Your task to perform on an android device: Show the shopping cart on amazon.com. Add "duracell triple a" to the cart on amazon.com Image 0: 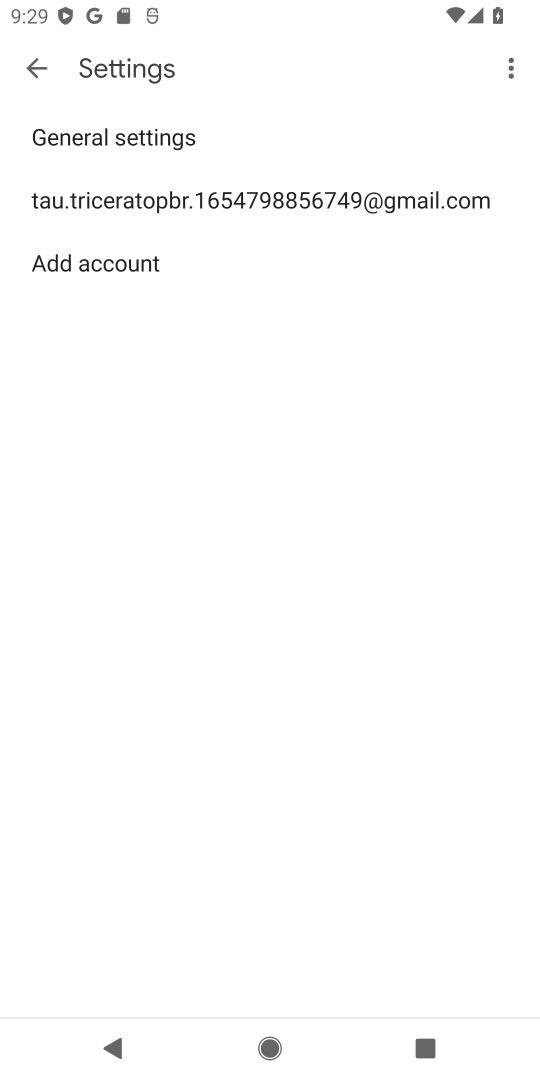
Step 0: press home button
Your task to perform on an android device: Show the shopping cart on amazon.com. Add "duracell triple a" to the cart on amazon.com Image 1: 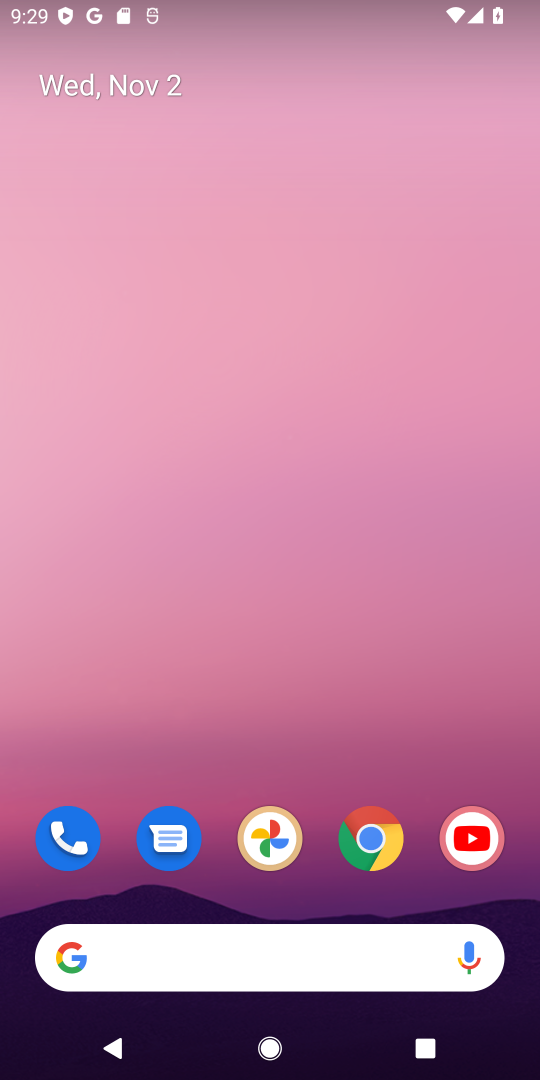
Step 1: click (380, 842)
Your task to perform on an android device: Show the shopping cart on amazon.com. Add "duracell triple a" to the cart on amazon.com Image 2: 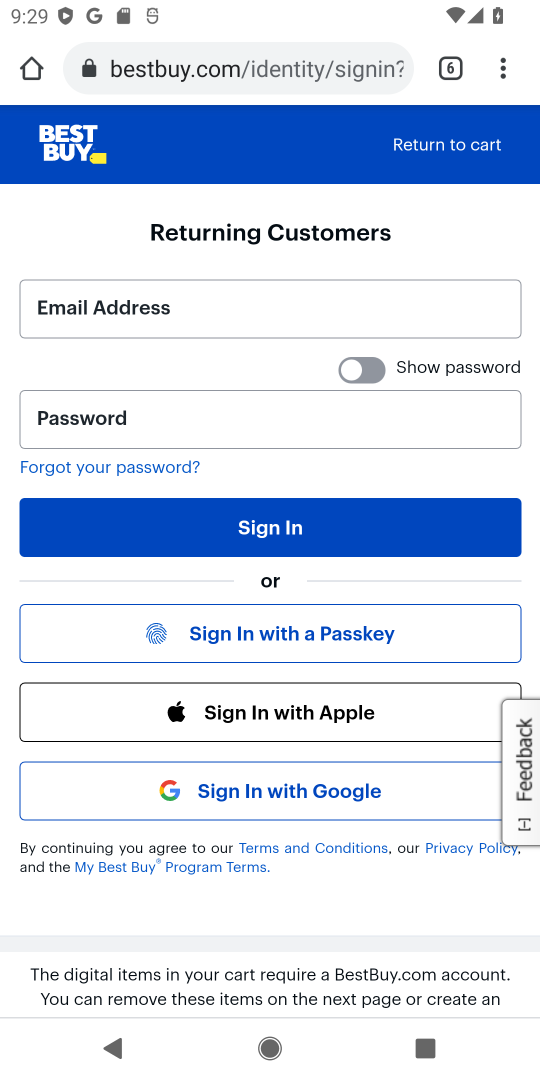
Step 2: click (449, 66)
Your task to perform on an android device: Show the shopping cart on amazon.com. Add "duracell triple a" to the cart on amazon.com Image 3: 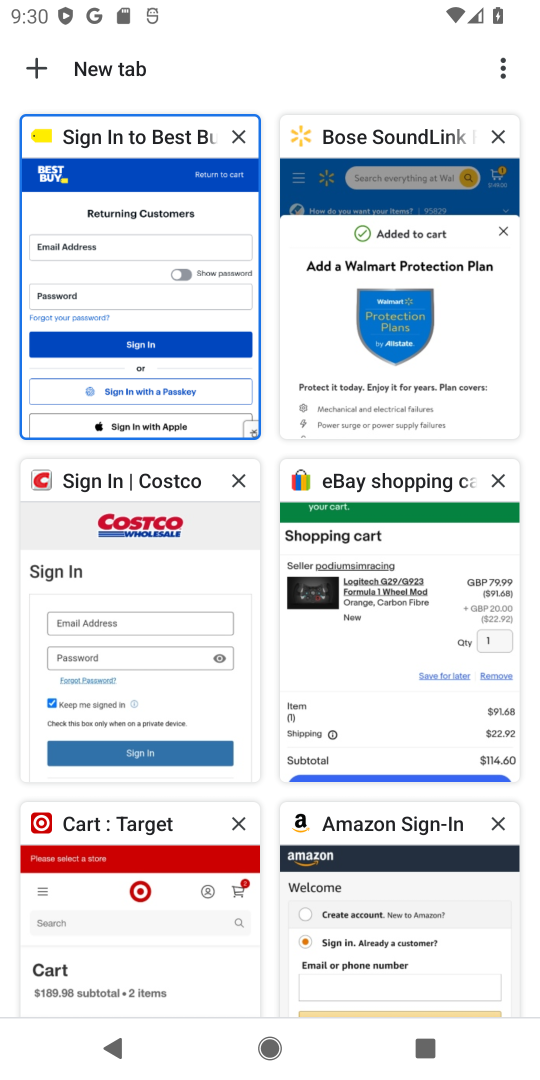
Step 3: click (380, 858)
Your task to perform on an android device: Show the shopping cart on amazon.com. Add "duracell triple a" to the cart on amazon.com Image 4: 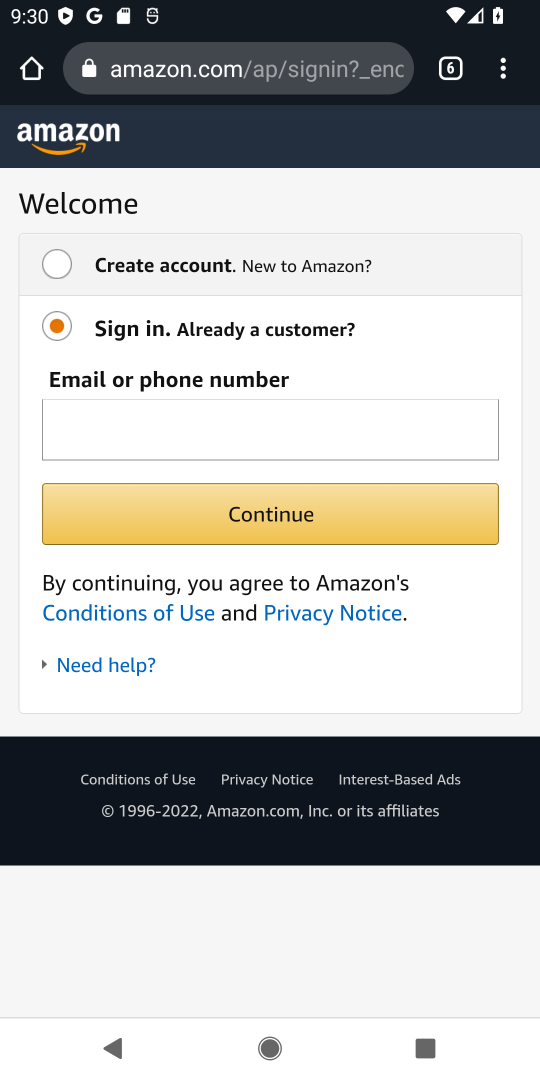
Step 4: press back button
Your task to perform on an android device: Show the shopping cart on amazon.com. Add "duracell triple a" to the cart on amazon.com Image 5: 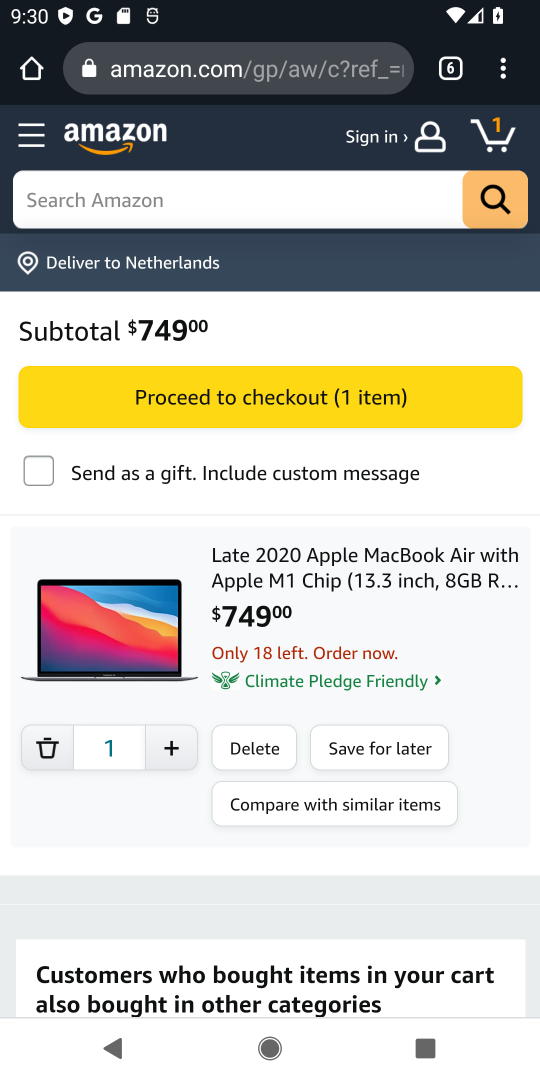
Step 5: click (494, 137)
Your task to perform on an android device: Show the shopping cart on amazon.com. Add "duracell triple a" to the cart on amazon.com Image 6: 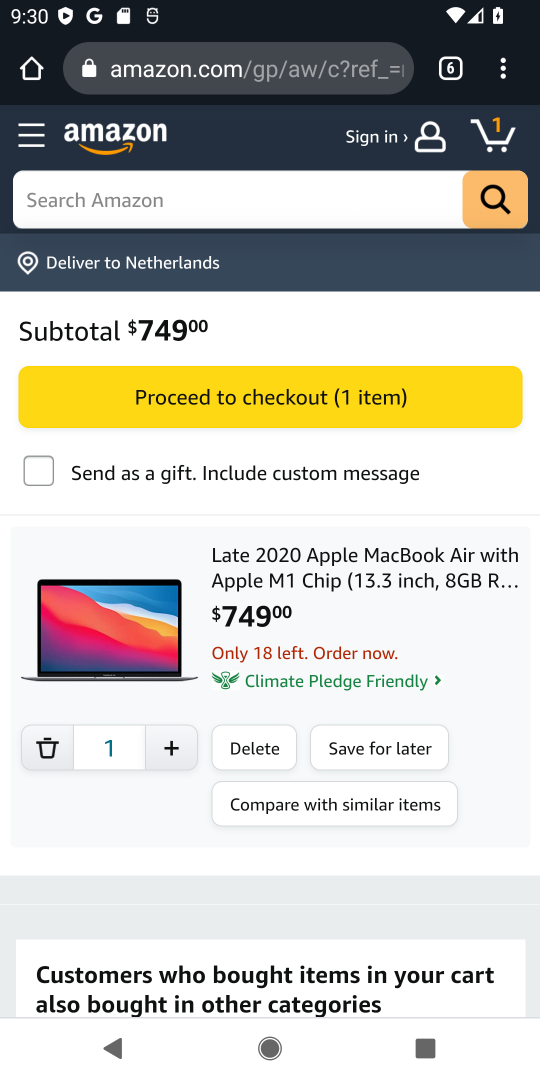
Step 6: click (252, 755)
Your task to perform on an android device: Show the shopping cart on amazon.com. Add "duracell triple a" to the cart on amazon.com Image 7: 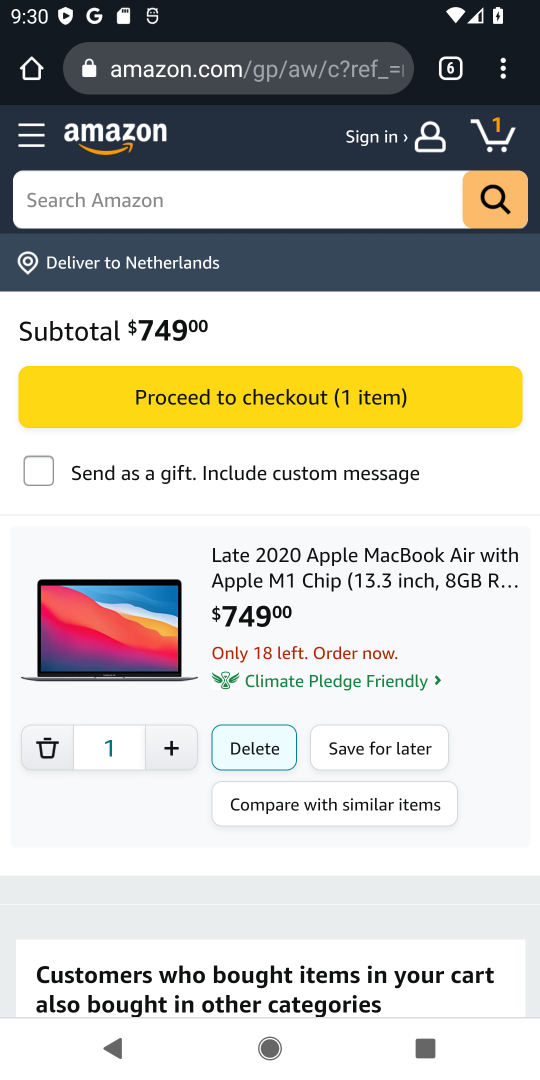
Step 7: click (253, 740)
Your task to perform on an android device: Show the shopping cart on amazon.com. Add "duracell triple a" to the cart on amazon.com Image 8: 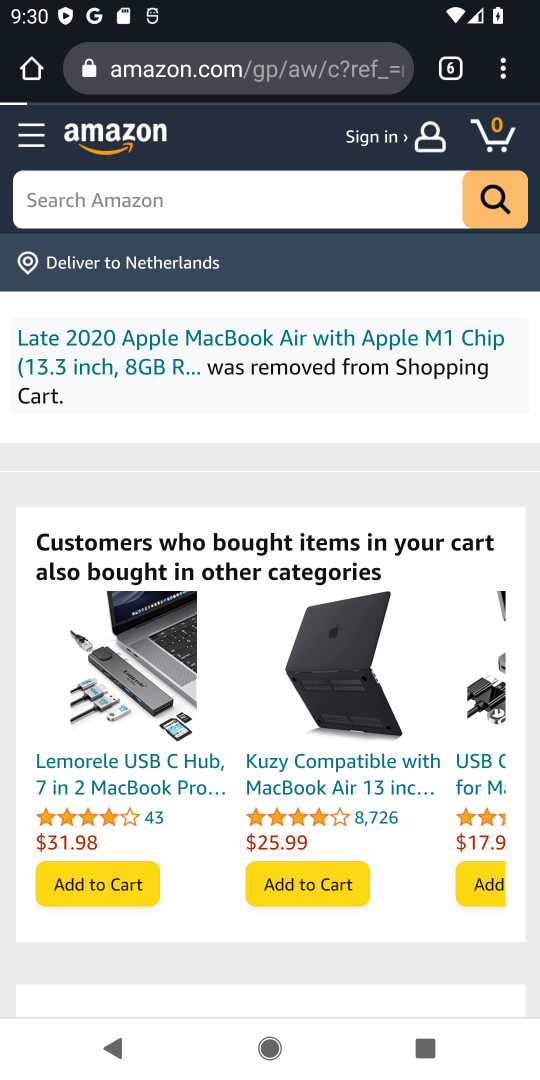
Step 8: click (253, 740)
Your task to perform on an android device: Show the shopping cart on amazon.com. Add "duracell triple a" to the cart on amazon.com Image 9: 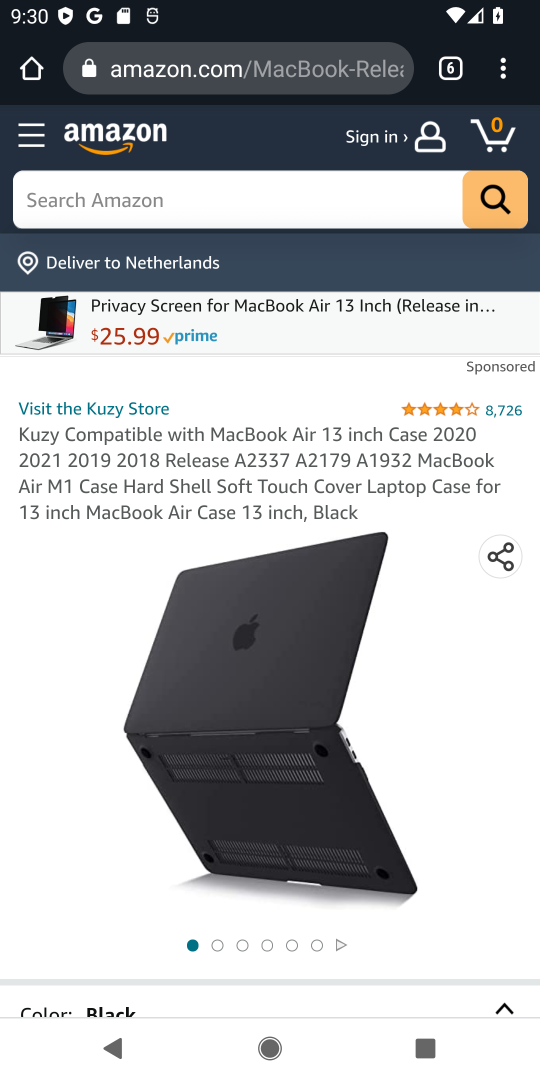
Step 9: click (242, 193)
Your task to perform on an android device: Show the shopping cart on amazon.com. Add "duracell triple a" to the cart on amazon.com Image 10: 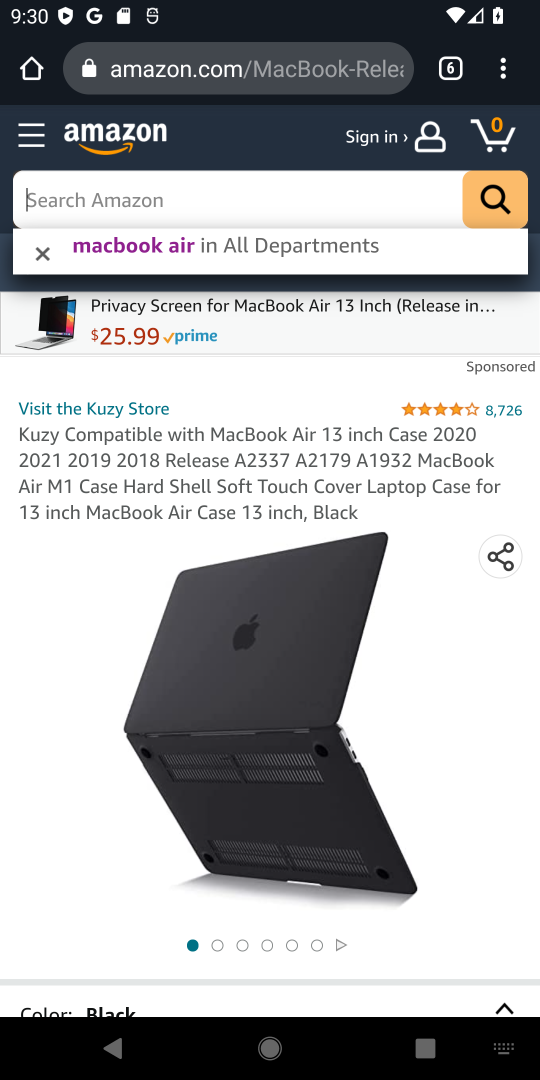
Step 10: type "duracell triple a"
Your task to perform on an android device: Show the shopping cart on amazon.com. Add "duracell triple a" to the cart on amazon.com Image 11: 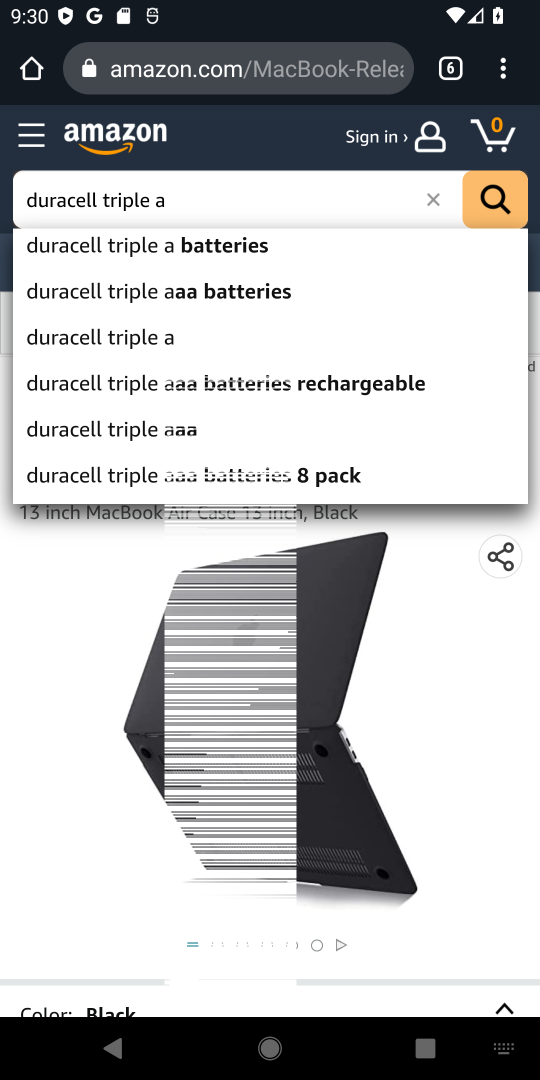
Step 11: click (249, 241)
Your task to perform on an android device: Show the shopping cart on amazon.com. Add "duracell triple a" to the cart on amazon.com Image 12: 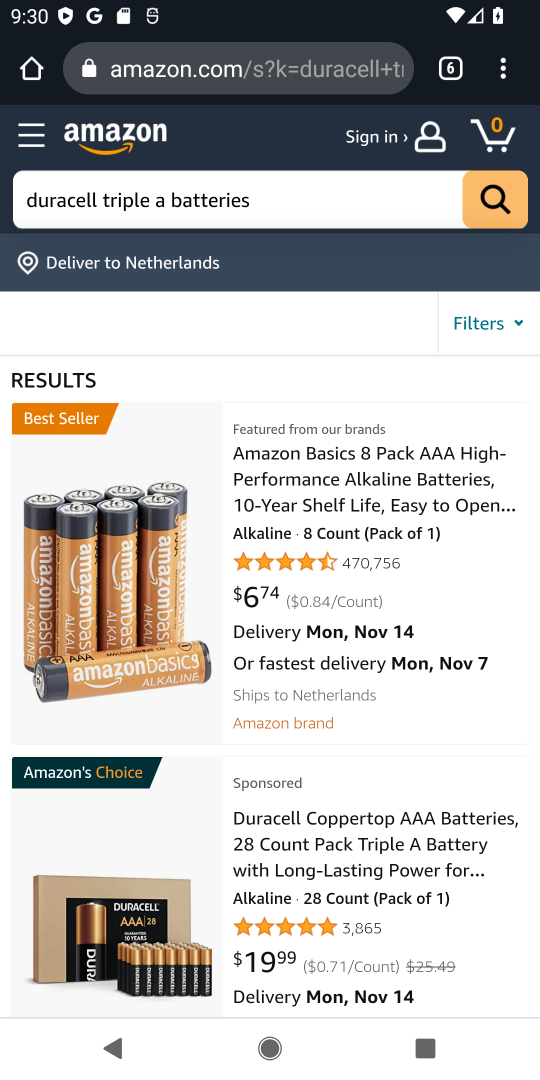
Step 12: click (343, 845)
Your task to perform on an android device: Show the shopping cart on amazon.com. Add "duracell triple a" to the cart on amazon.com Image 13: 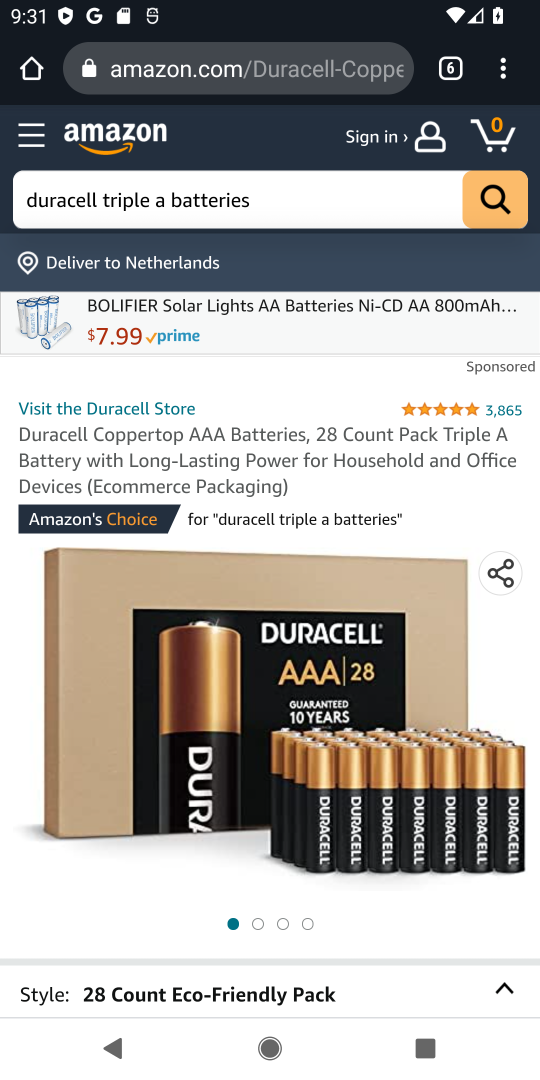
Step 13: drag from (178, 895) to (238, 334)
Your task to perform on an android device: Show the shopping cart on amazon.com. Add "duracell triple a" to the cart on amazon.com Image 14: 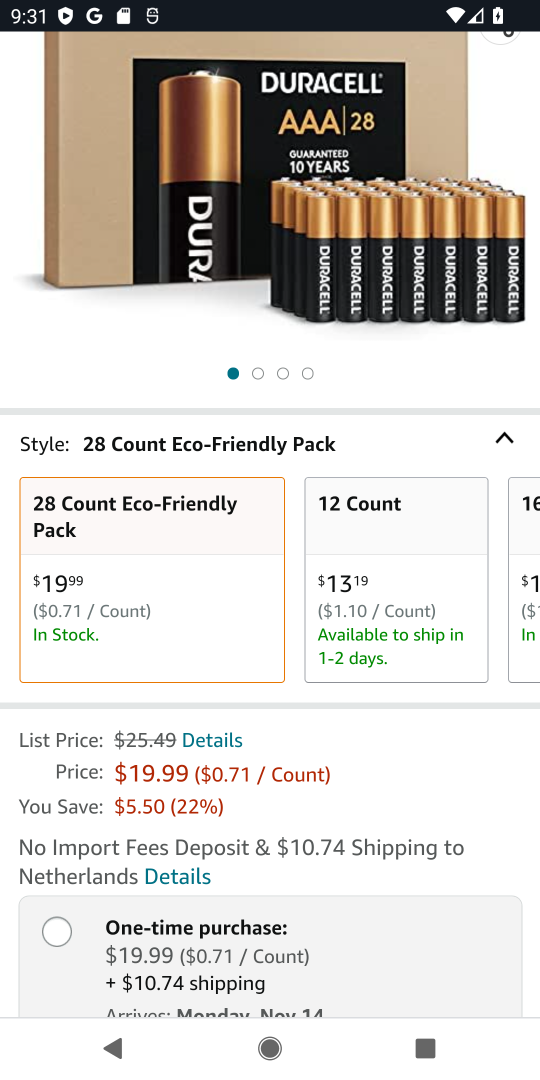
Step 14: drag from (319, 808) to (293, 311)
Your task to perform on an android device: Show the shopping cart on amazon.com. Add "duracell triple a" to the cart on amazon.com Image 15: 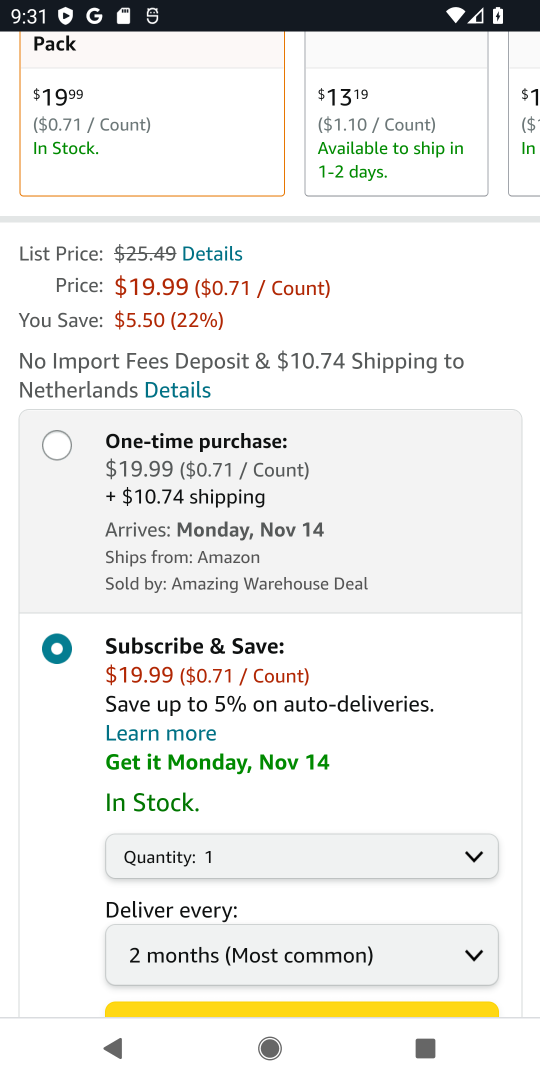
Step 15: drag from (390, 741) to (343, 304)
Your task to perform on an android device: Show the shopping cart on amazon.com. Add "duracell triple a" to the cart on amazon.com Image 16: 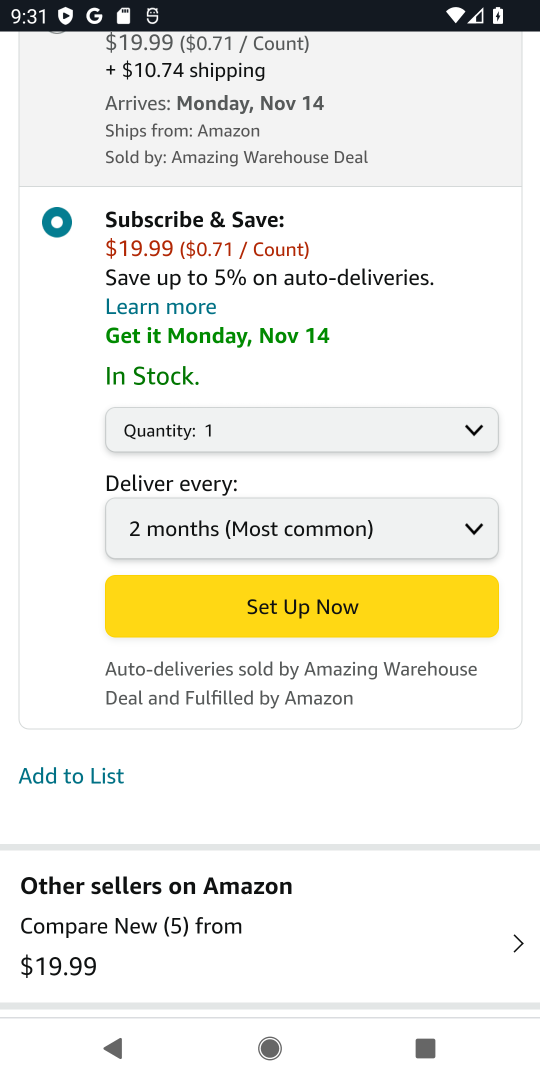
Step 16: click (92, 764)
Your task to perform on an android device: Show the shopping cart on amazon.com. Add "duracell triple a" to the cart on amazon.com Image 17: 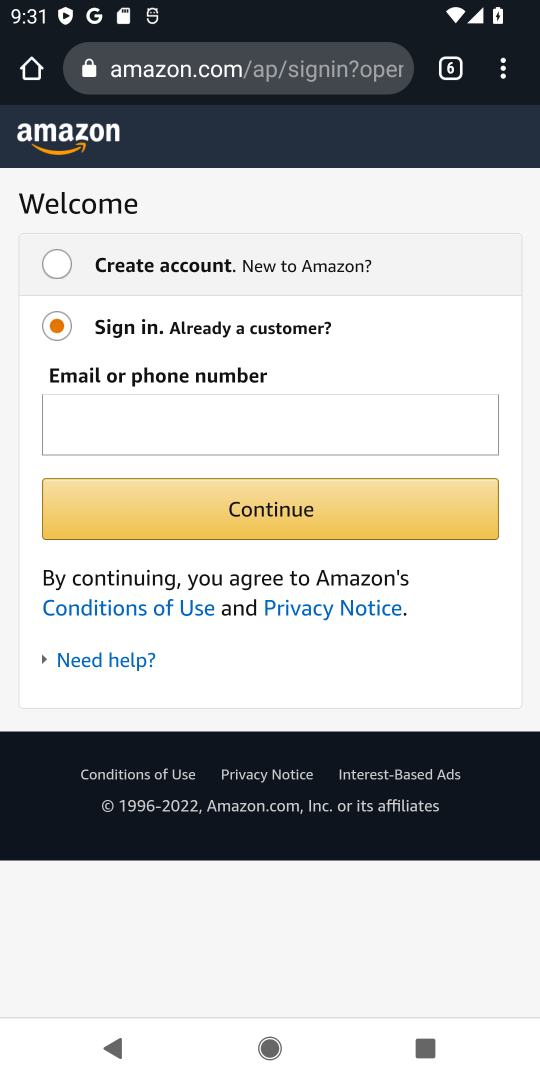
Step 17: task complete